Your task to perform on an android device: turn off location Image 0: 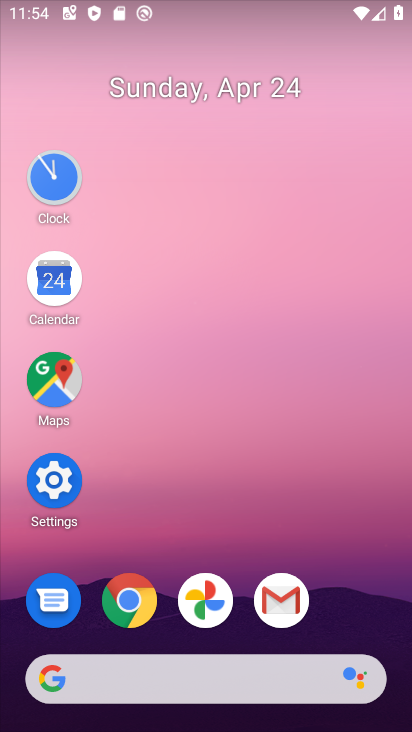
Step 0: click (49, 476)
Your task to perform on an android device: turn off location Image 1: 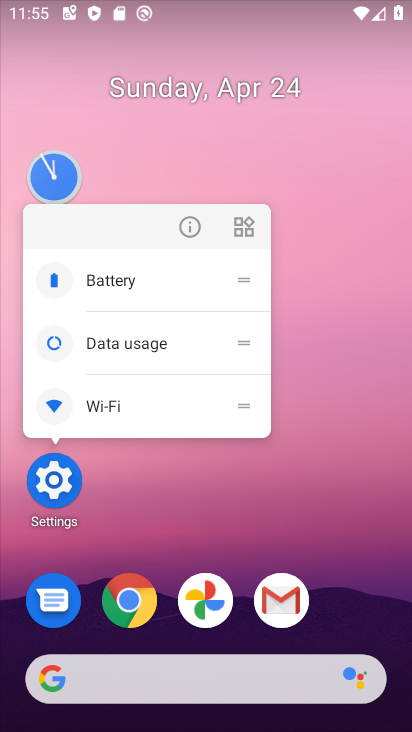
Step 1: click (69, 465)
Your task to perform on an android device: turn off location Image 2: 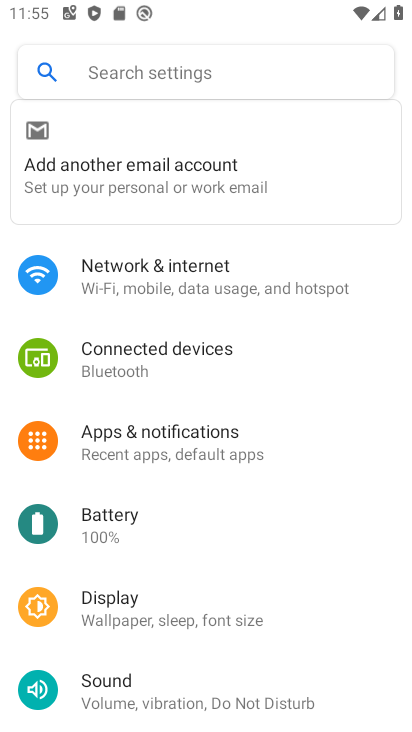
Step 2: drag from (194, 521) to (184, 173)
Your task to perform on an android device: turn off location Image 3: 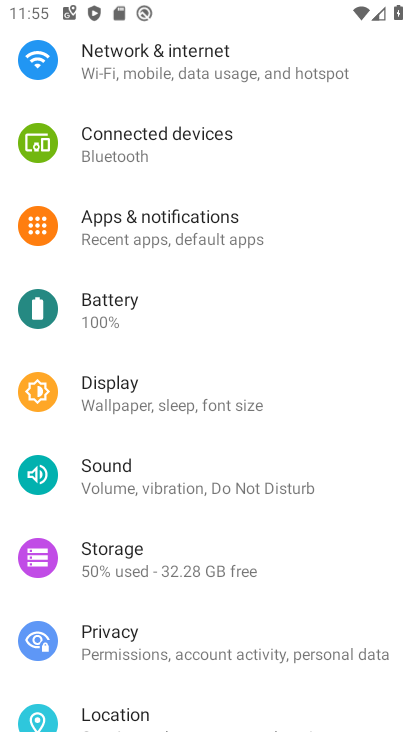
Step 3: click (130, 711)
Your task to perform on an android device: turn off location Image 4: 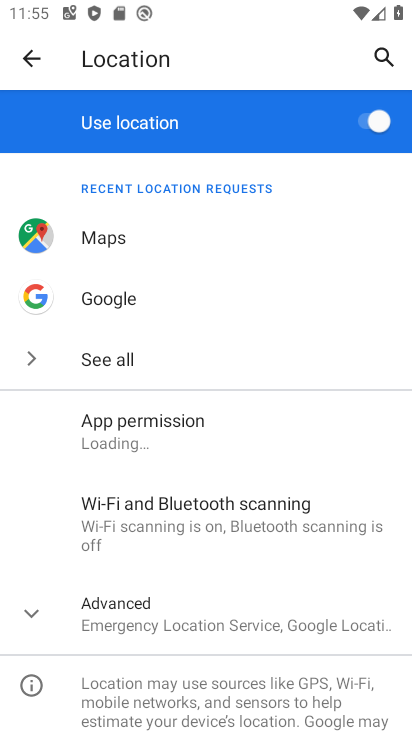
Step 4: click (381, 118)
Your task to perform on an android device: turn off location Image 5: 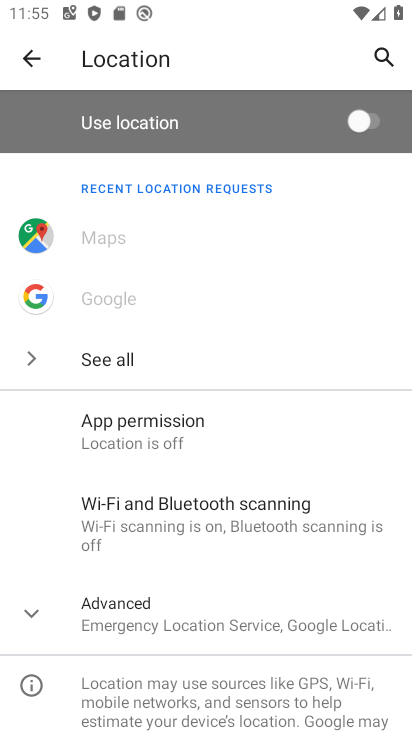
Step 5: task complete